Your task to perform on an android device: Play the last video I watched on Youtube Image 0: 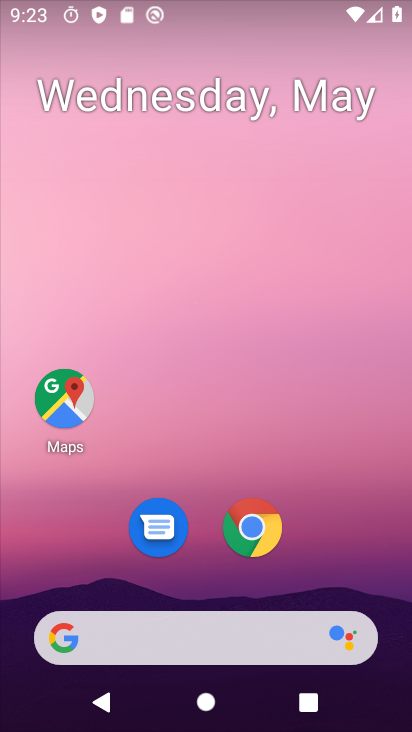
Step 0: drag from (333, 512) to (343, 79)
Your task to perform on an android device: Play the last video I watched on Youtube Image 1: 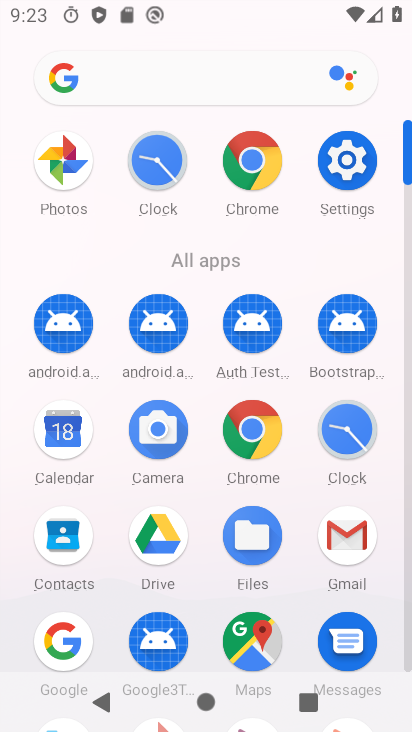
Step 1: drag from (281, 266) to (295, 35)
Your task to perform on an android device: Play the last video I watched on Youtube Image 2: 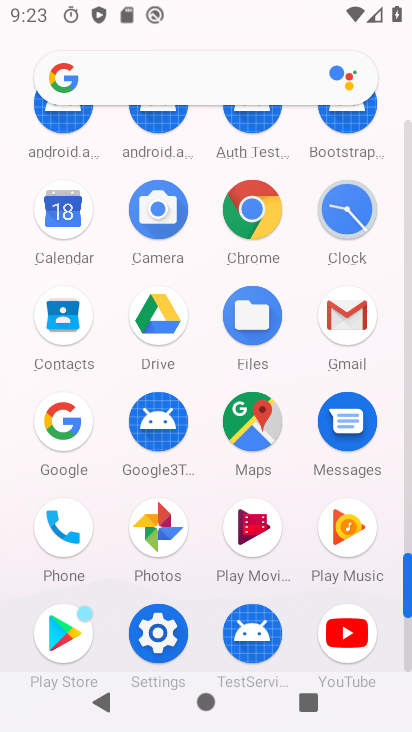
Step 2: click (345, 629)
Your task to perform on an android device: Play the last video I watched on Youtube Image 3: 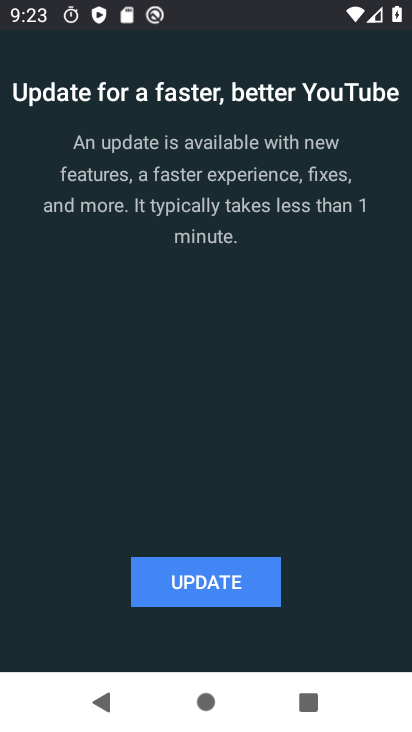
Step 3: click (210, 571)
Your task to perform on an android device: Play the last video I watched on Youtube Image 4: 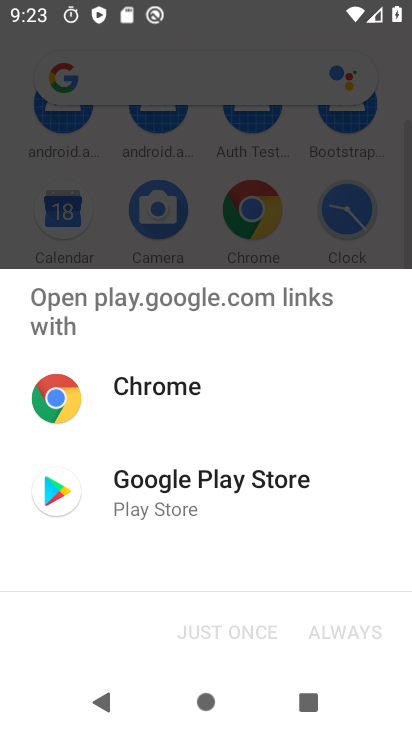
Step 4: click (174, 476)
Your task to perform on an android device: Play the last video I watched on Youtube Image 5: 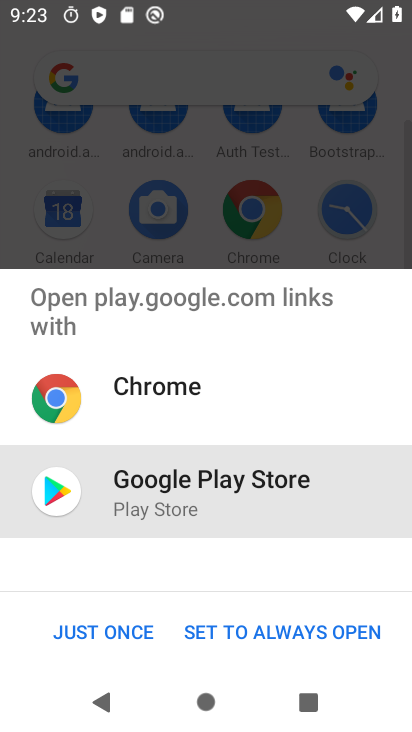
Step 5: click (135, 627)
Your task to perform on an android device: Play the last video I watched on Youtube Image 6: 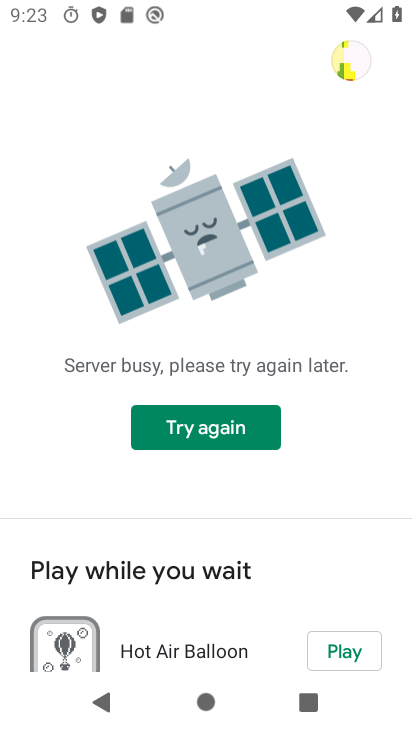
Step 6: press back button
Your task to perform on an android device: Play the last video I watched on Youtube Image 7: 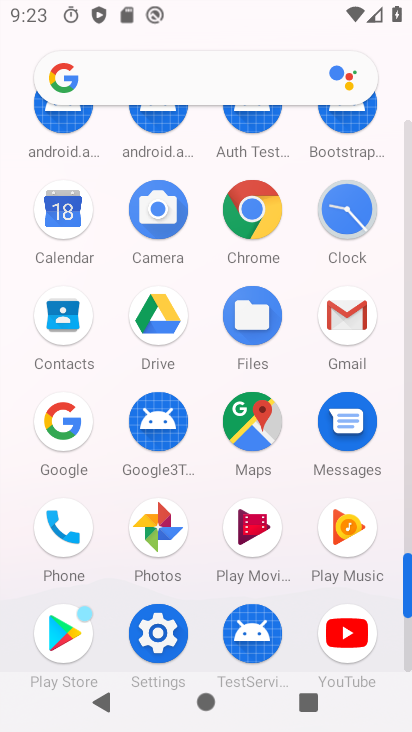
Step 7: click (353, 627)
Your task to perform on an android device: Play the last video I watched on Youtube Image 8: 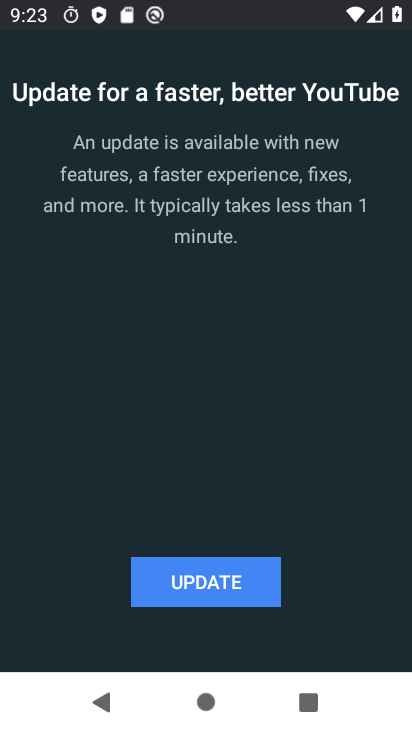
Step 8: task complete